Your task to perform on an android device: What's the news in Ecuador? Image 0: 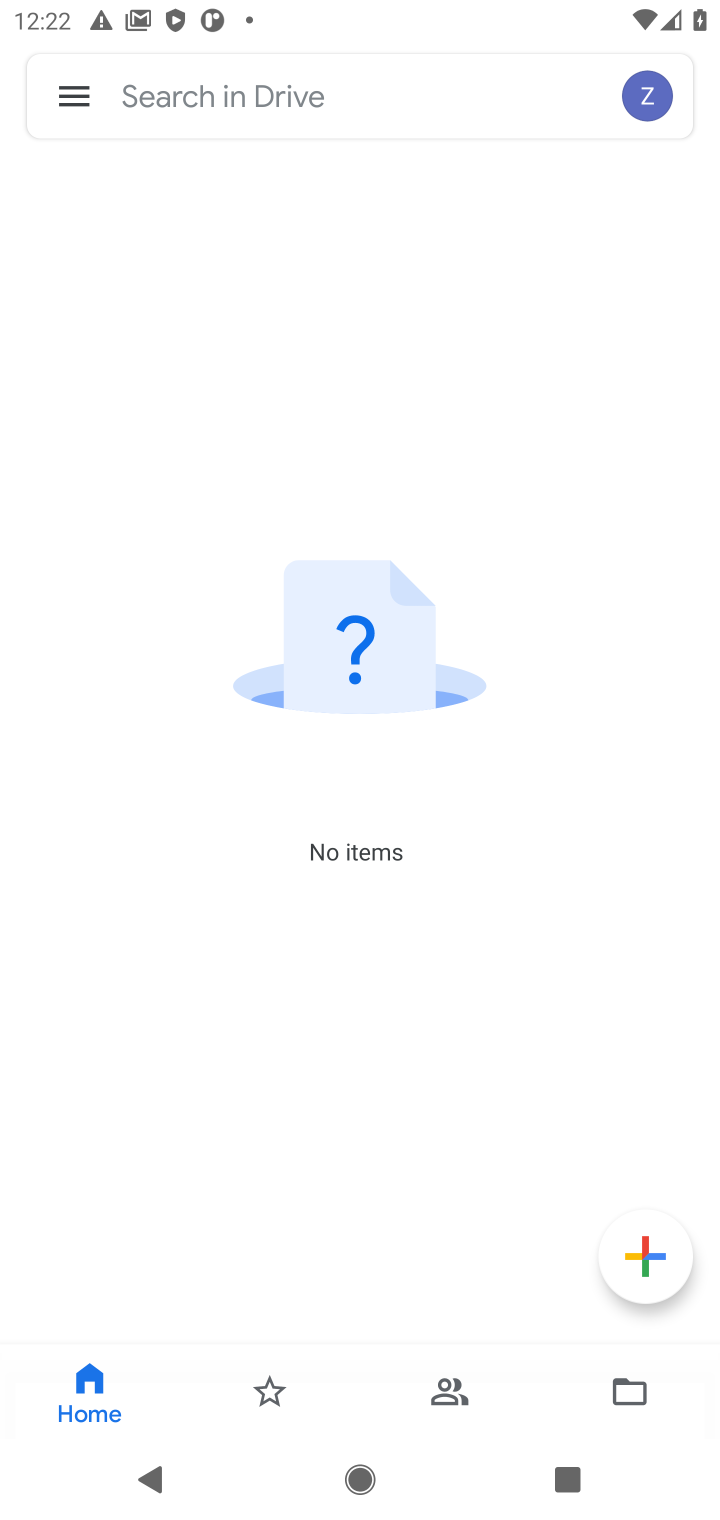
Step 0: press home button
Your task to perform on an android device: What's the news in Ecuador? Image 1: 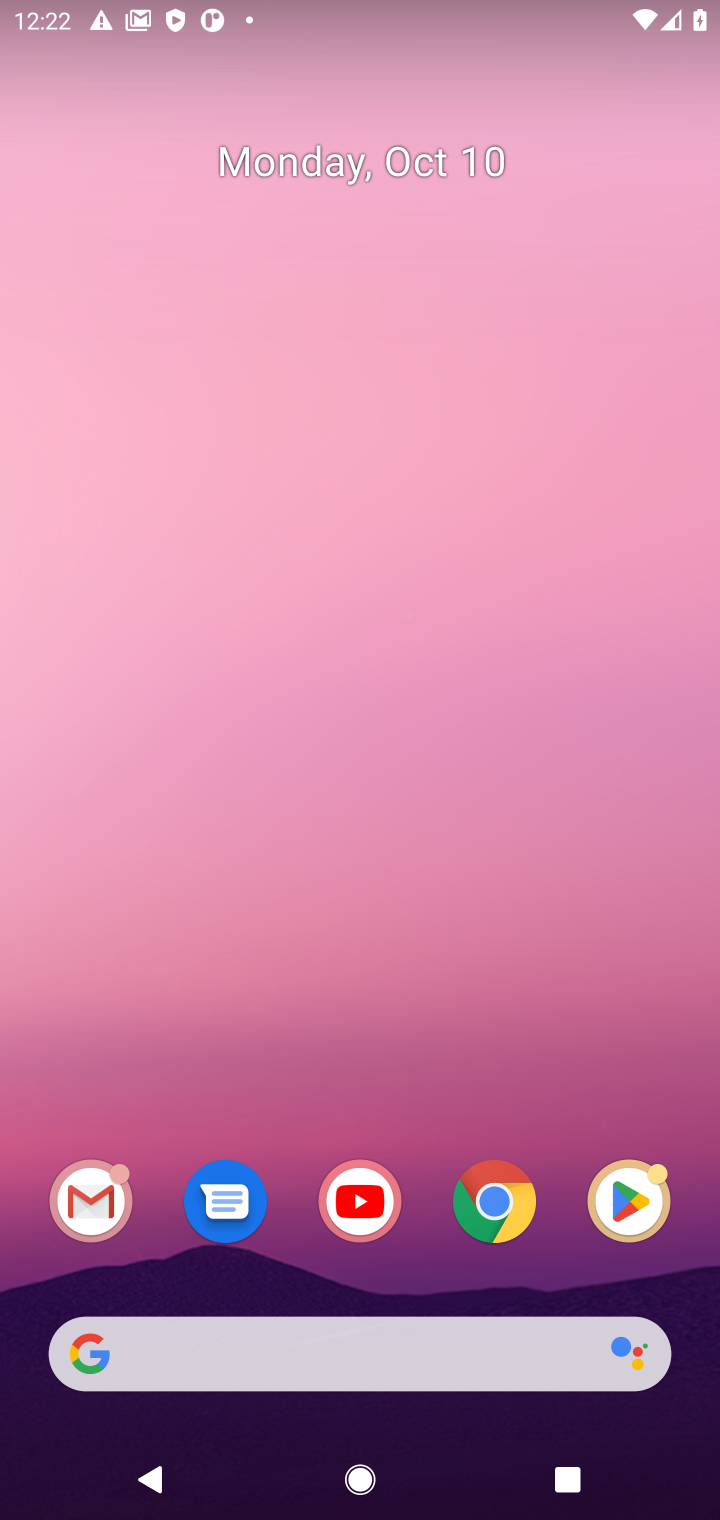
Step 1: click (490, 1225)
Your task to perform on an android device: What's the news in Ecuador? Image 2: 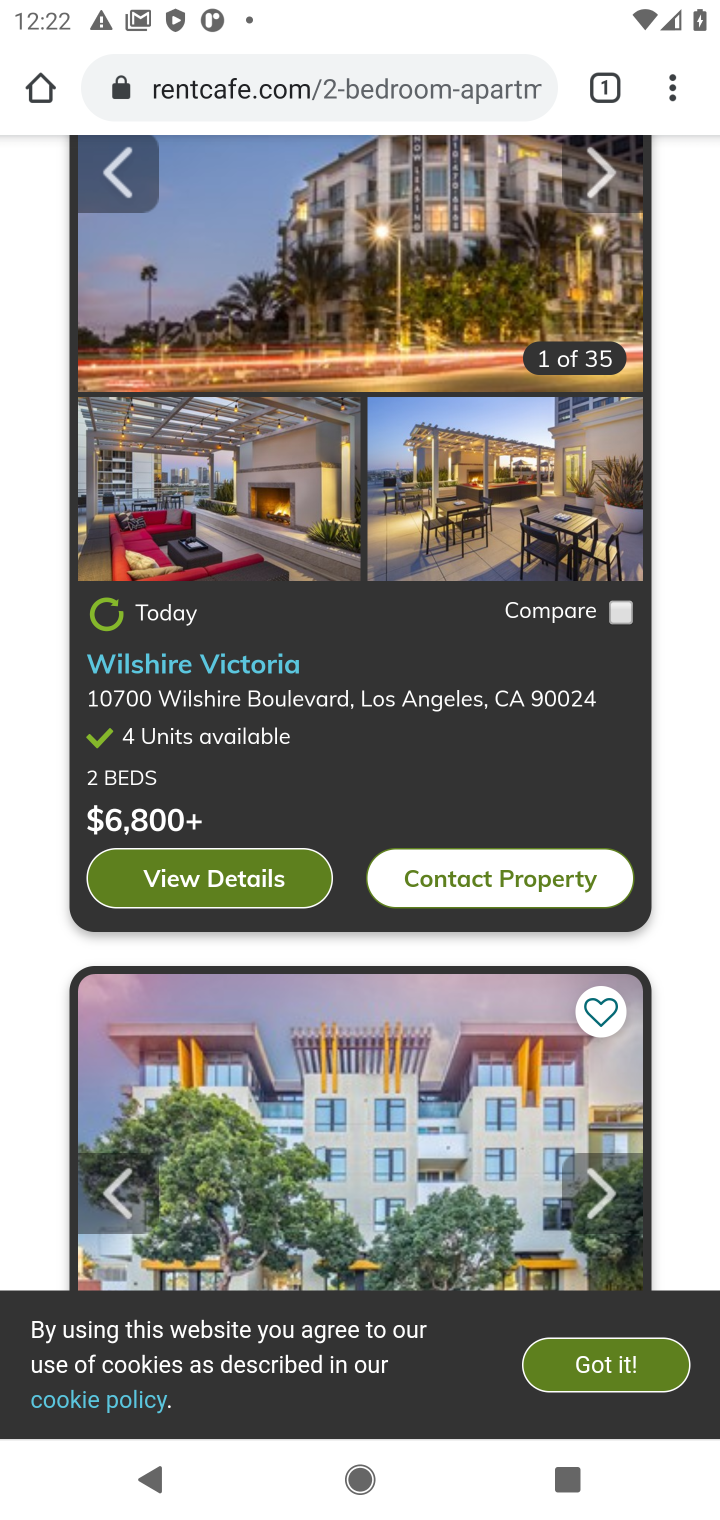
Step 2: click (212, 86)
Your task to perform on an android device: What's the news in Ecuador? Image 3: 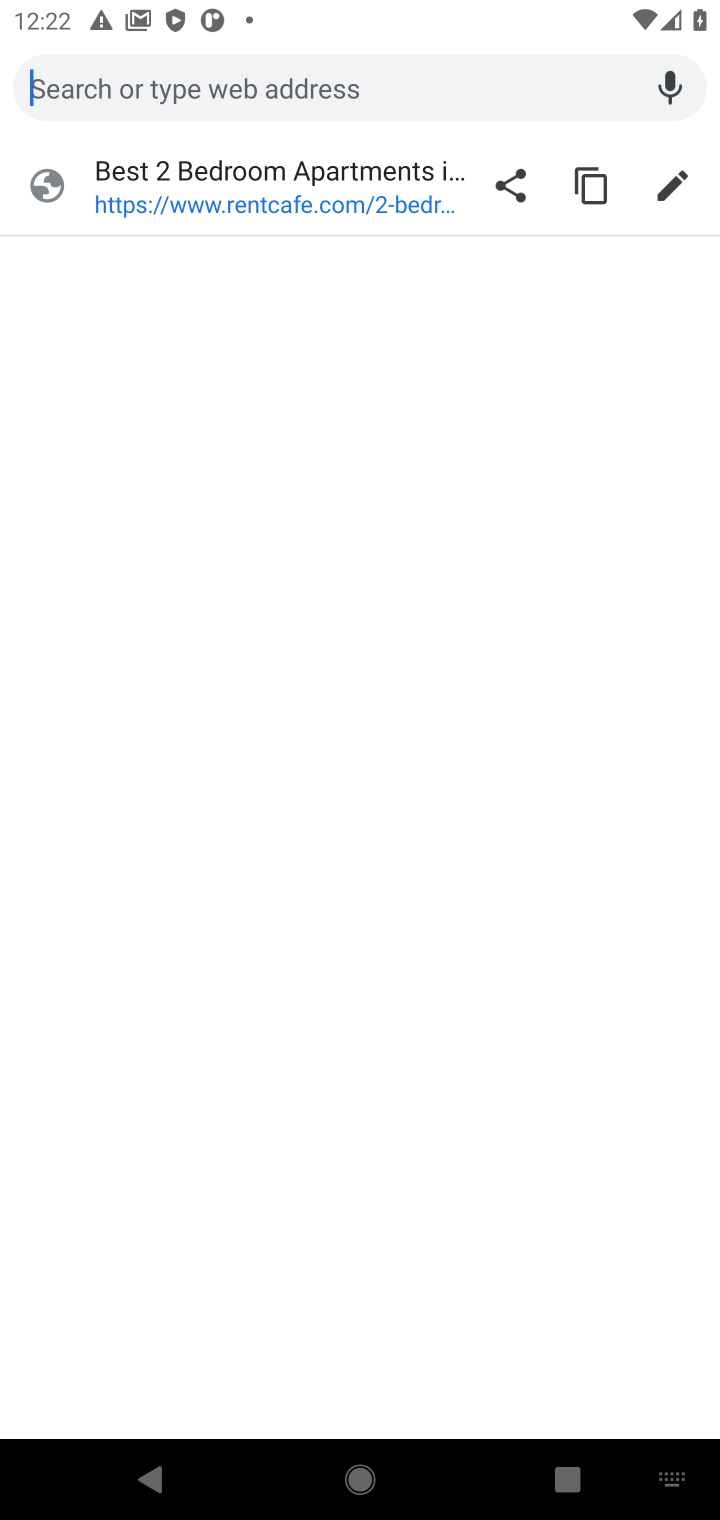
Step 3: type "What's the news in Ecuador?"
Your task to perform on an android device: What's the news in Ecuador? Image 4: 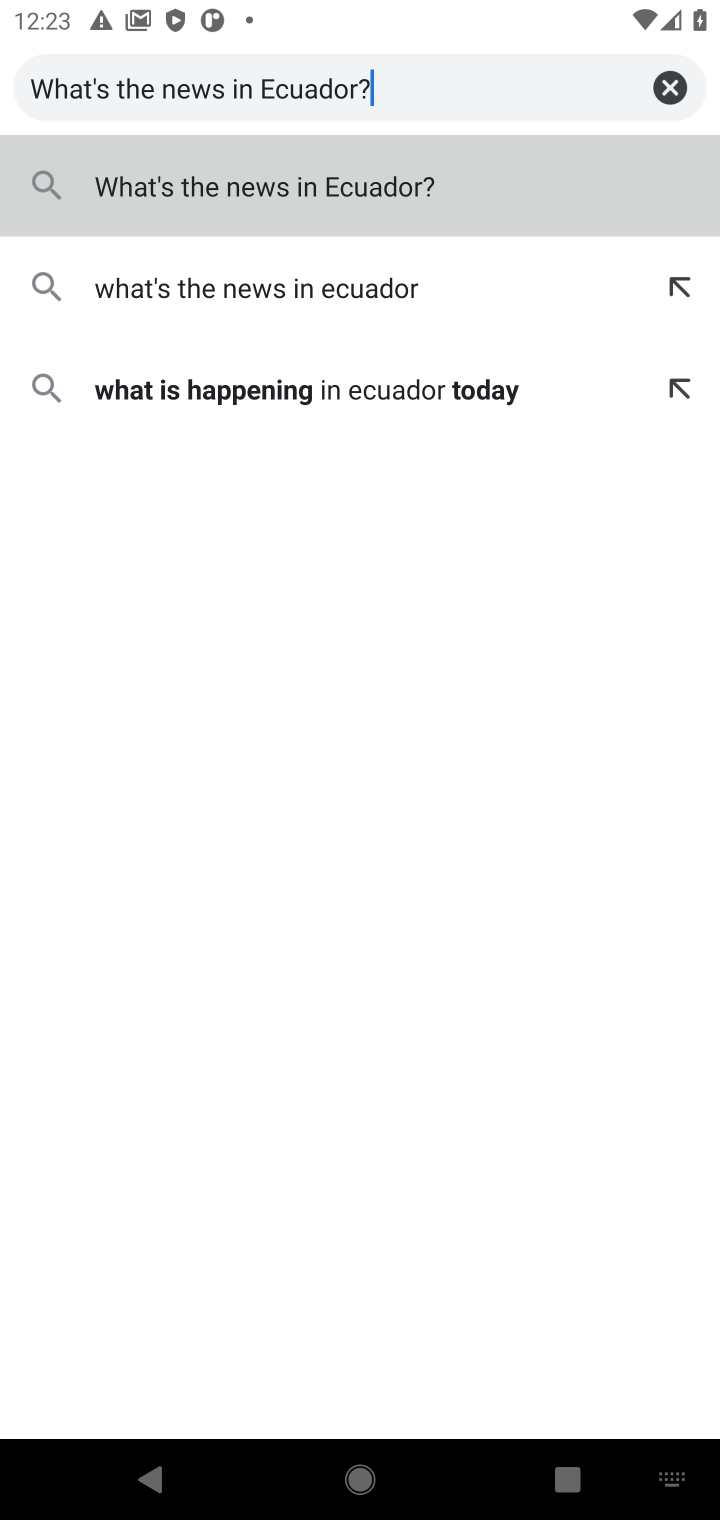
Step 4: click (293, 201)
Your task to perform on an android device: What's the news in Ecuador? Image 5: 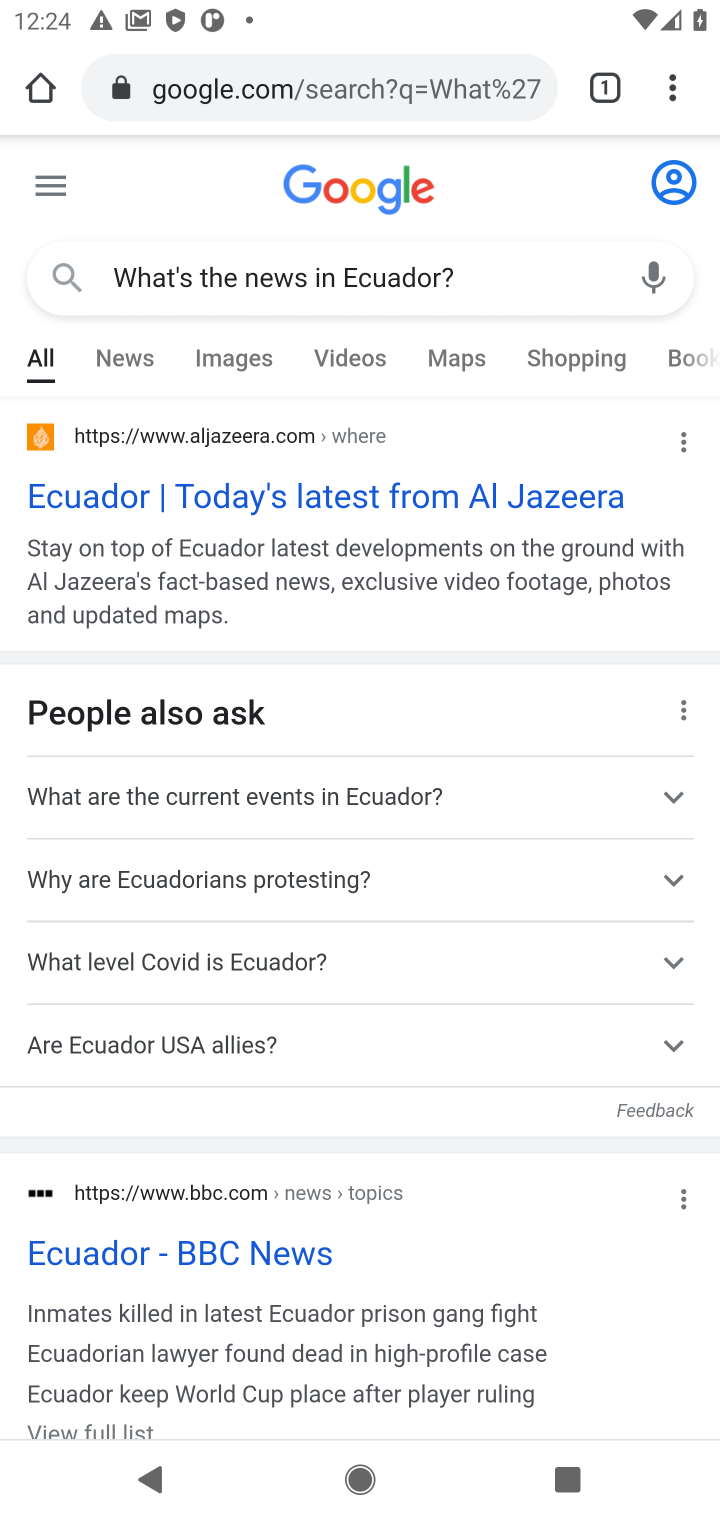
Step 5: click (213, 1302)
Your task to perform on an android device: What's the news in Ecuador? Image 6: 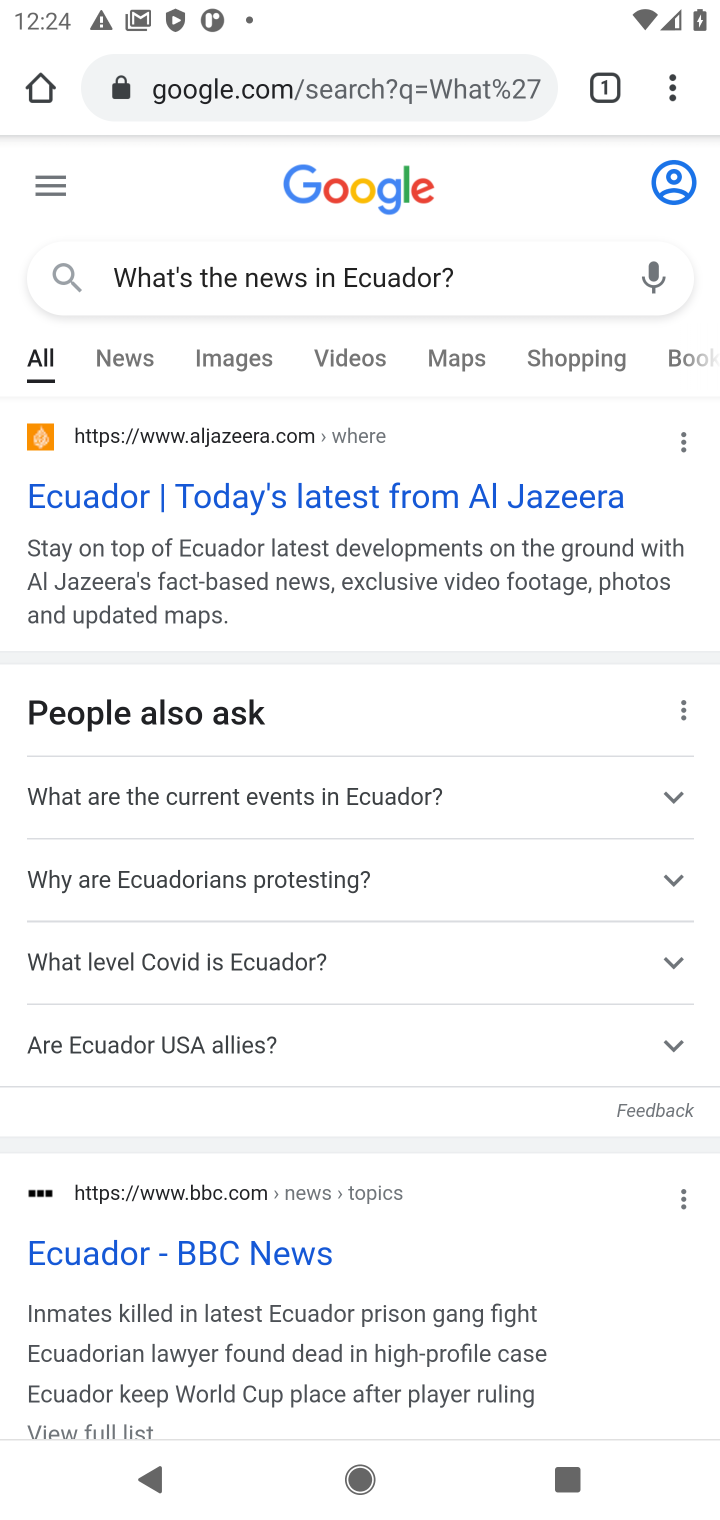
Step 6: click (207, 1270)
Your task to perform on an android device: What's the news in Ecuador? Image 7: 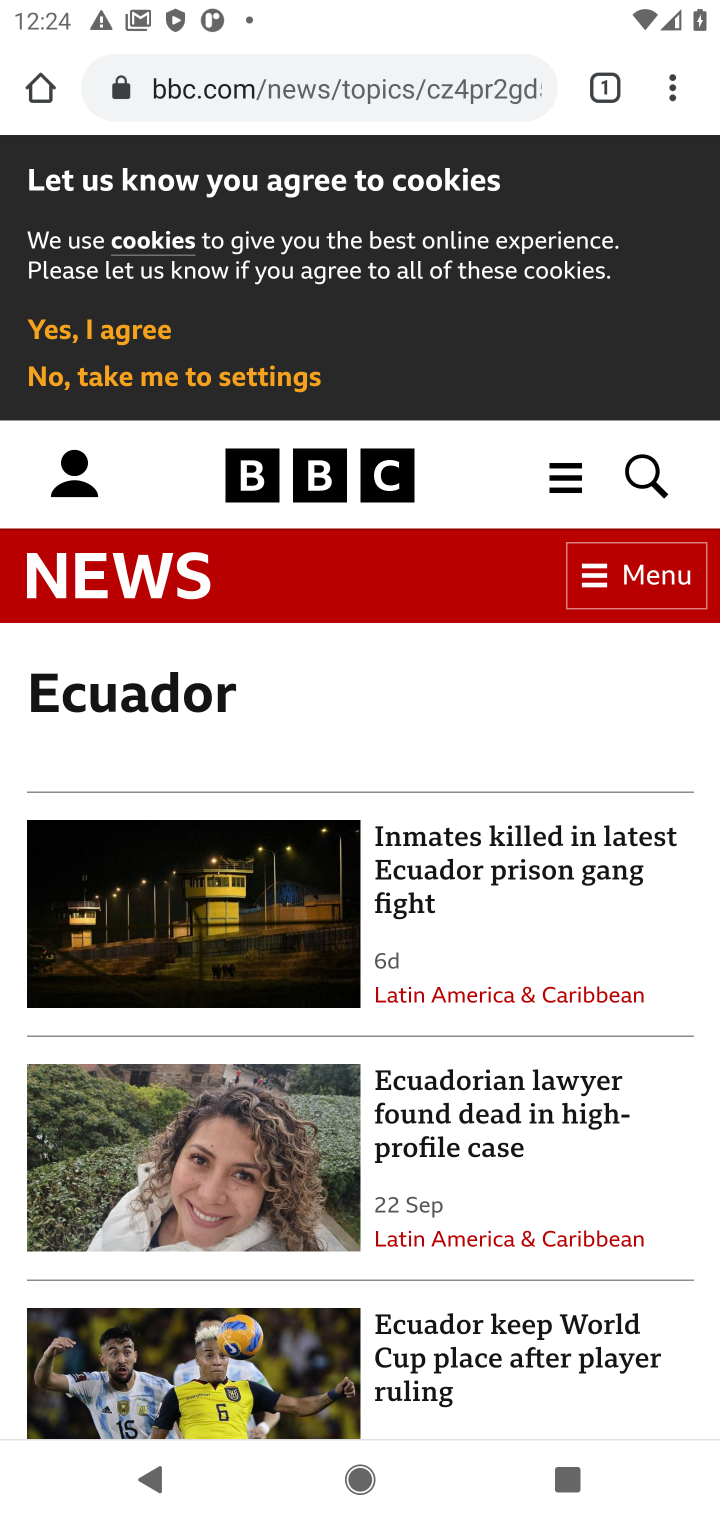
Step 7: task complete